Your task to perform on an android device: Open display settings Image 0: 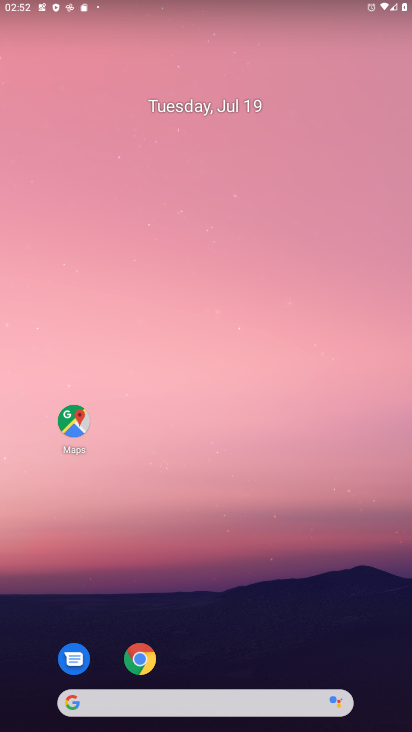
Step 0: press home button
Your task to perform on an android device: Open display settings Image 1: 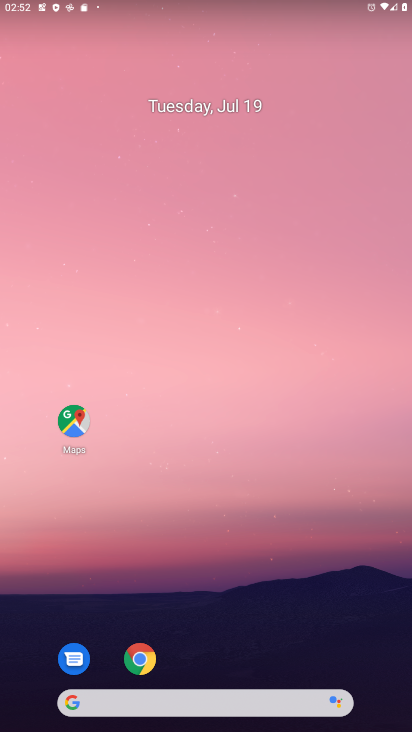
Step 1: drag from (240, 649) to (287, 55)
Your task to perform on an android device: Open display settings Image 2: 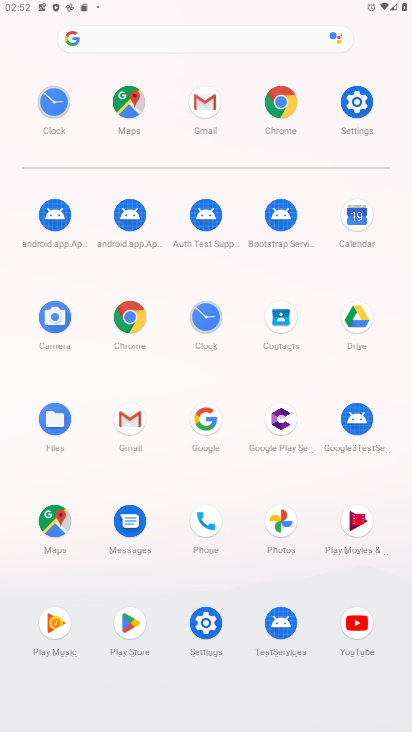
Step 2: click (198, 624)
Your task to perform on an android device: Open display settings Image 3: 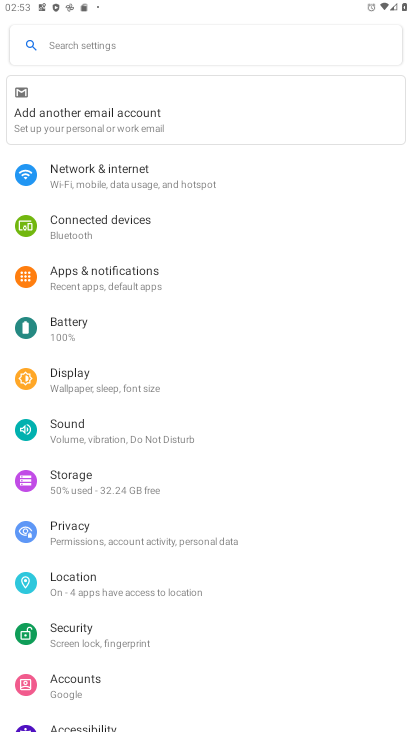
Step 3: click (42, 363)
Your task to perform on an android device: Open display settings Image 4: 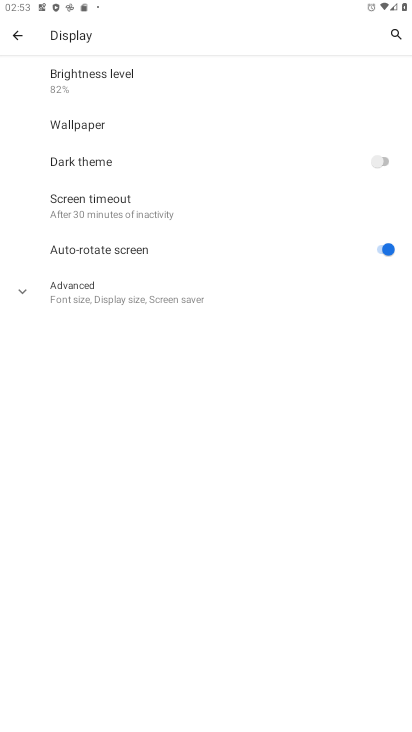
Step 4: task complete